Your task to perform on an android device: open wifi settings Image 0: 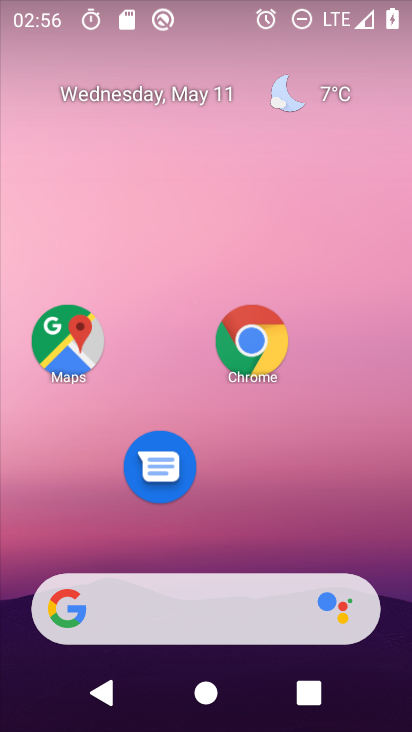
Step 0: drag from (180, 607) to (300, 71)
Your task to perform on an android device: open wifi settings Image 1: 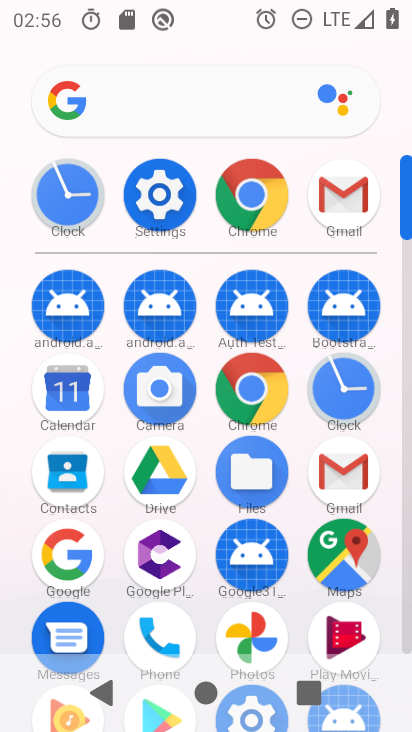
Step 1: click (144, 209)
Your task to perform on an android device: open wifi settings Image 2: 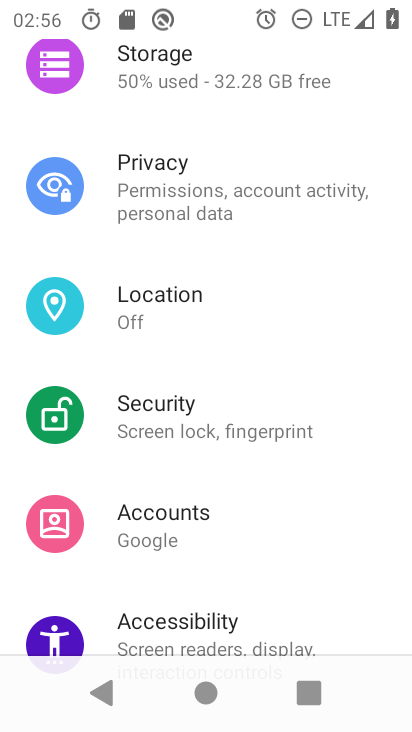
Step 2: drag from (314, 131) to (202, 554)
Your task to perform on an android device: open wifi settings Image 3: 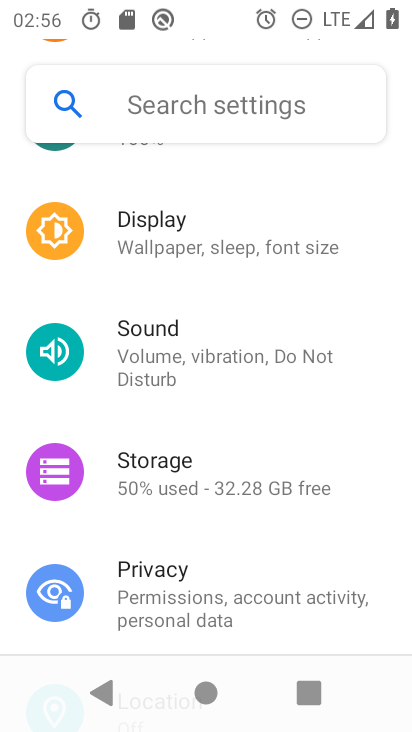
Step 3: drag from (253, 178) to (208, 595)
Your task to perform on an android device: open wifi settings Image 4: 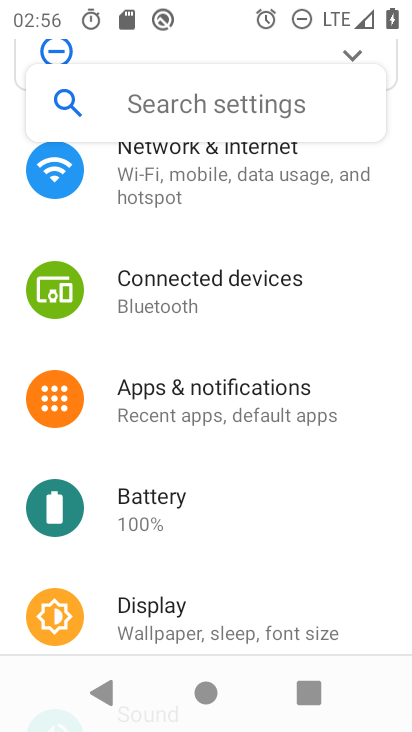
Step 4: drag from (274, 232) to (247, 557)
Your task to perform on an android device: open wifi settings Image 5: 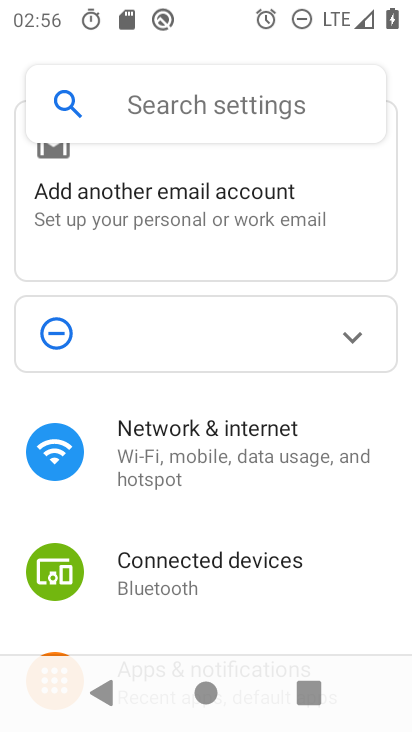
Step 5: click (225, 436)
Your task to perform on an android device: open wifi settings Image 6: 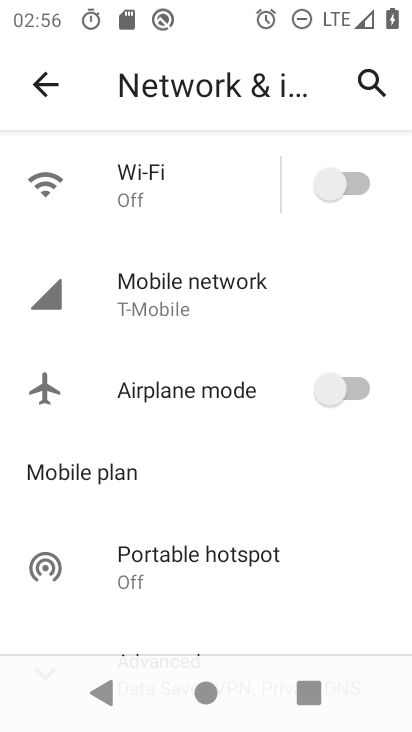
Step 6: click (135, 197)
Your task to perform on an android device: open wifi settings Image 7: 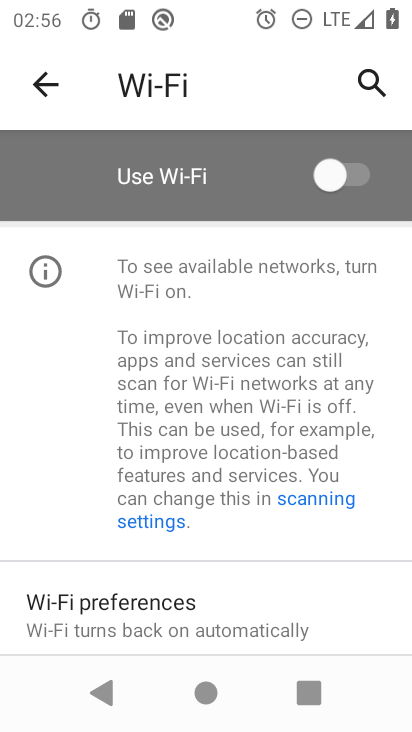
Step 7: task complete